Your task to perform on an android device: manage bookmarks in the chrome app Image 0: 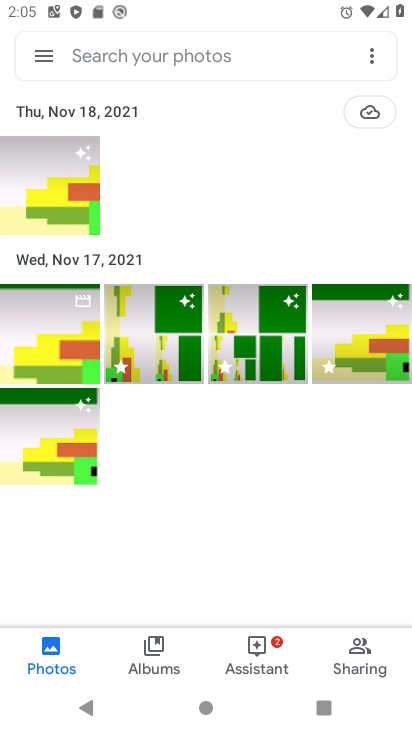
Step 0: press home button
Your task to perform on an android device: manage bookmarks in the chrome app Image 1: 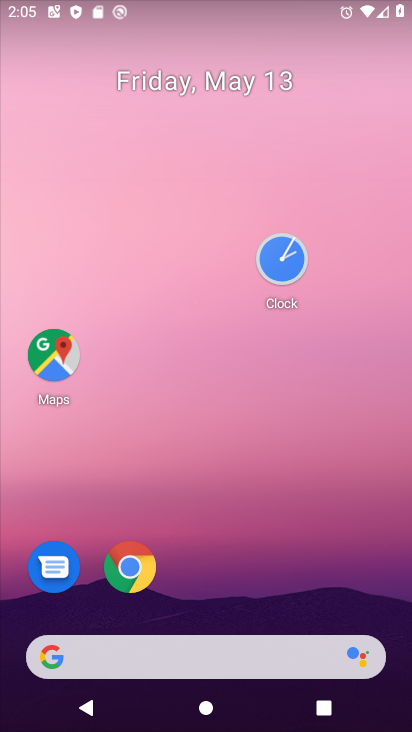
Step 1: click (149, 586)
Your task to perform on an android device: manage bookmarks in the chrome app Image 2: 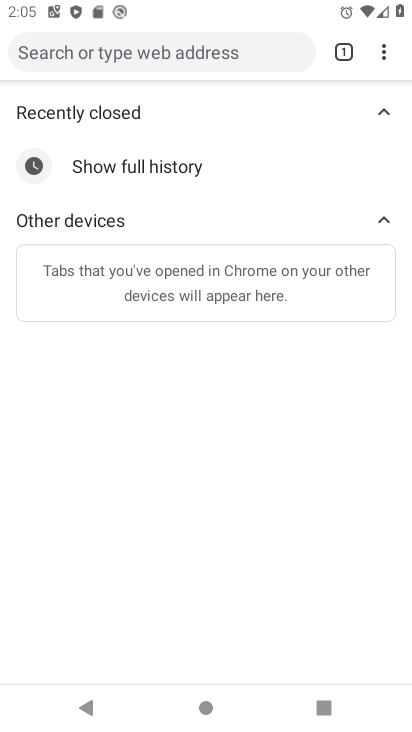
Step 2: click (377, 67)
Your task to perform on an android device: manage bookmarks in the chrome app Image 3: 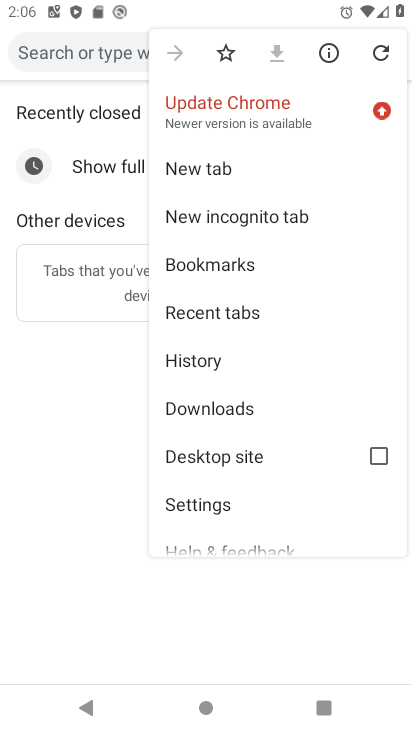
Step 3: click (248, 267)
Your task to perform on an android device: manage bookmarks in the chrome app Image 4: 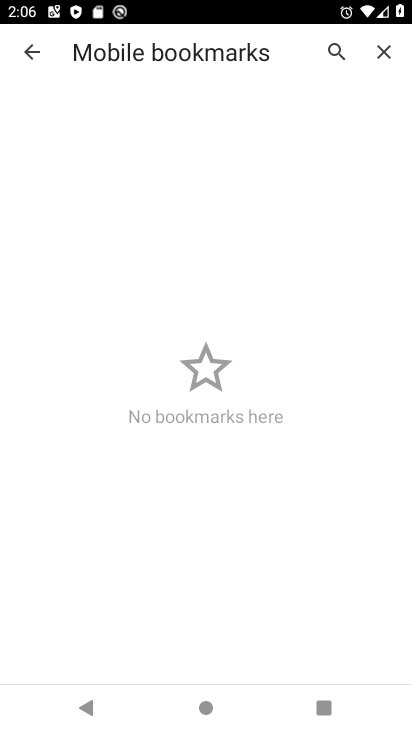
Step 4: task complete